Your task to perform on an android device: choose inbox layout in the gmail app Image 0: 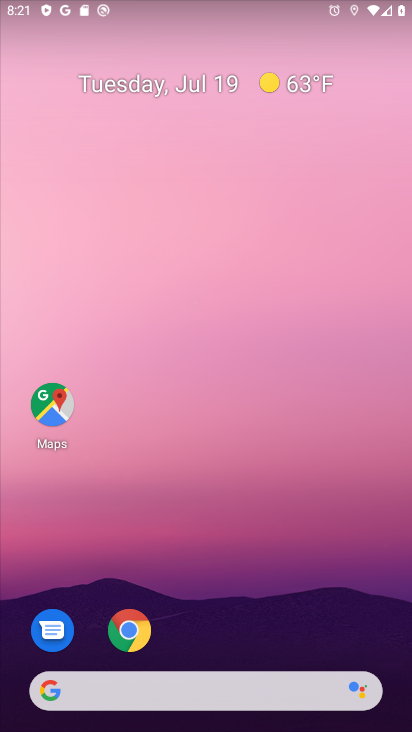
Step 0: drag from (325, 603) to (317, 110)
Your task to perform on an android device: choose inbox layout in the gmail app Image 1: 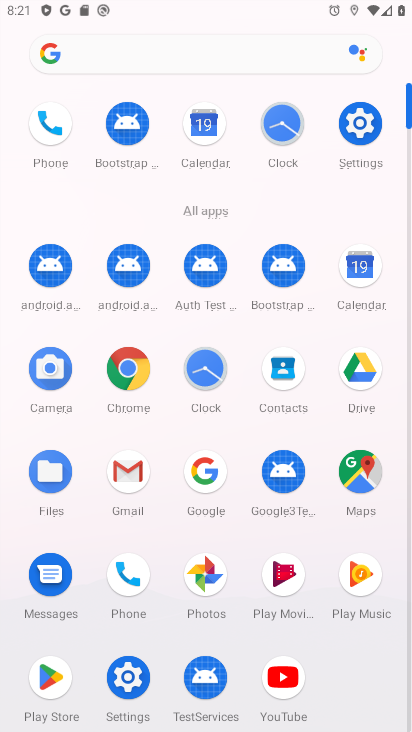
Step 1: click (125, 468)
Your task to perform on an android device: choose inbox layout in the gmail app Image 2: 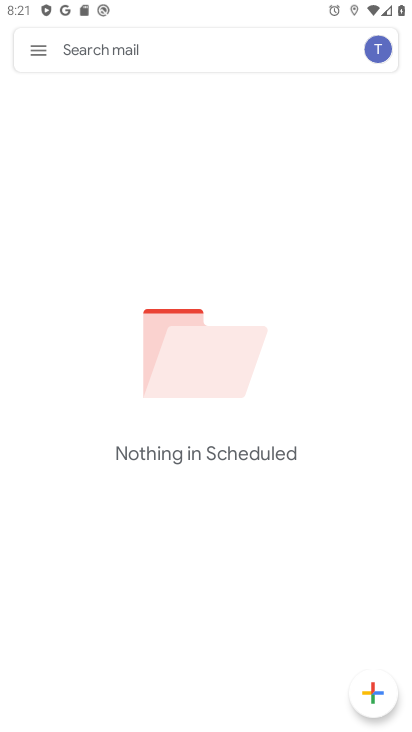
Step 2: click (31, 42)
Your task to perform on an android device: choose inbox layout in the gmail app Image 3: 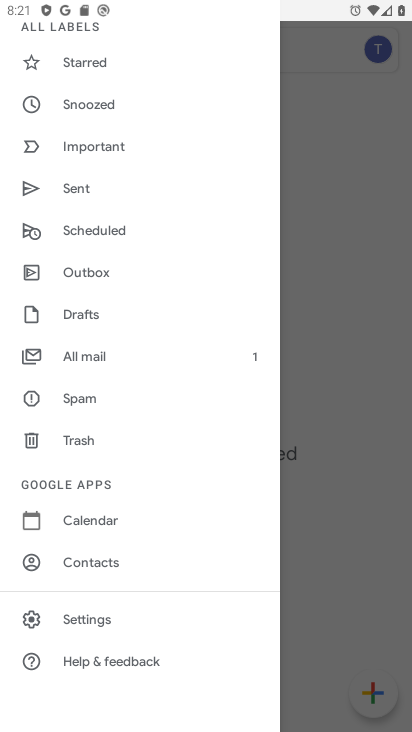
Step 3: click (104, 618)
Your task to perform on an android device: choose inbox layout in the gmail app Image 4: 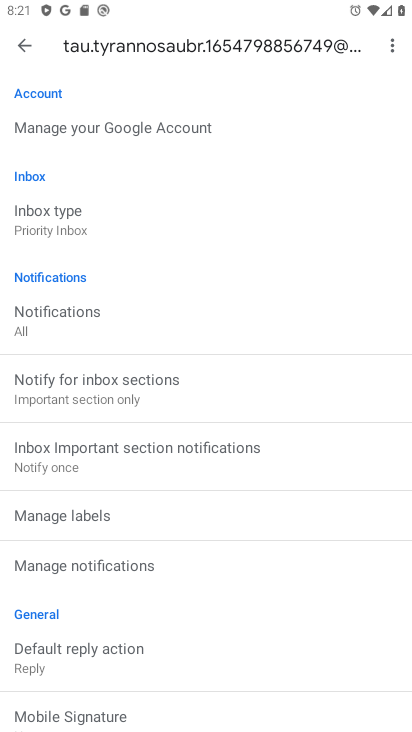
Step 4: click (49, 247)
Your task to perform on an android device: choose inbox layout in the gmail app Image 5: 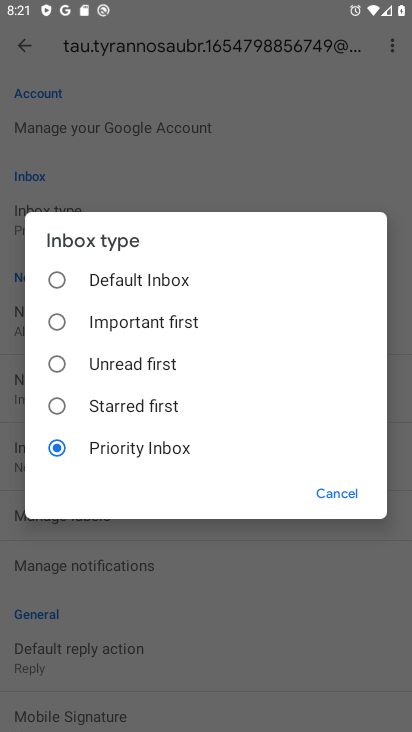
Step 5: click (68, 273)
Your task to perform on an android device: choose inbox layout in the gmail app Image 6: 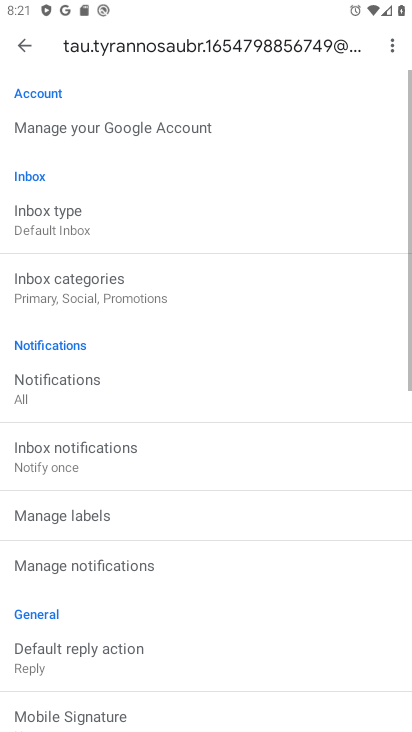
Step 6: task complete